Your task to perform on an android device: turn on the 24-hour format for clock Image 0: 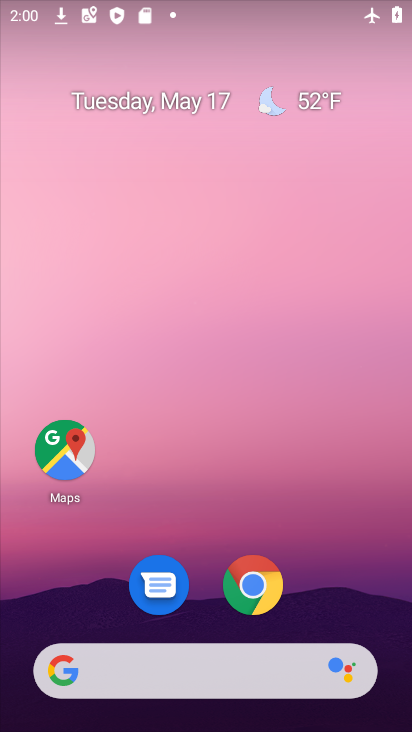
Step 0: drag from (227, 506) to (319, 28)
Your task to perform on an android device: turn on the 24-hour format for clock Image 1: 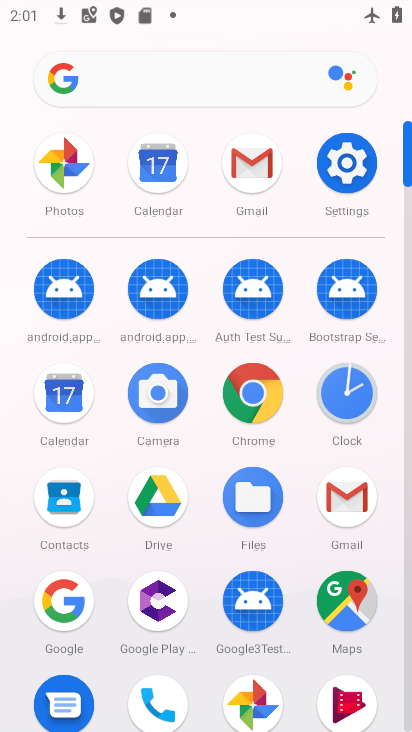
Step 1: click (343, 384)
Your task to perform on an android device: turn on the 24-hour format for clock Image 2: 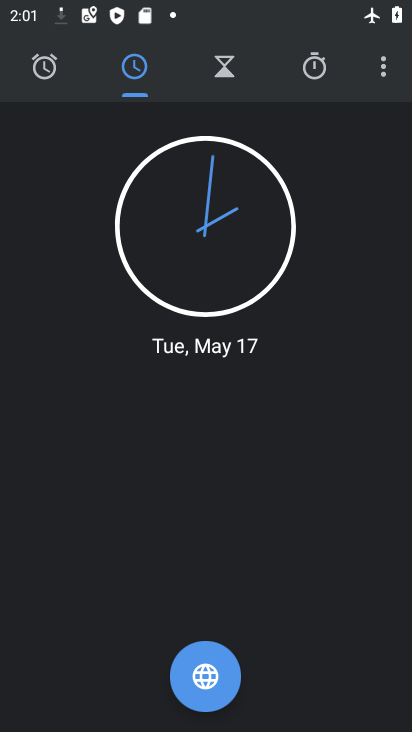
Step 2: click (384, 77)
Your task to perform on an android device: turn on the 24-hour format for clock Image 3: 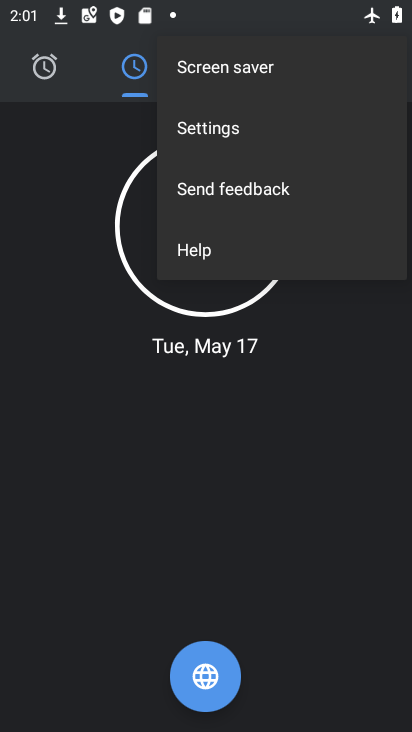
Step 3: click (303, 129)
Your task to perform on an android device: turn on the 24-hour format for clock Image 4: 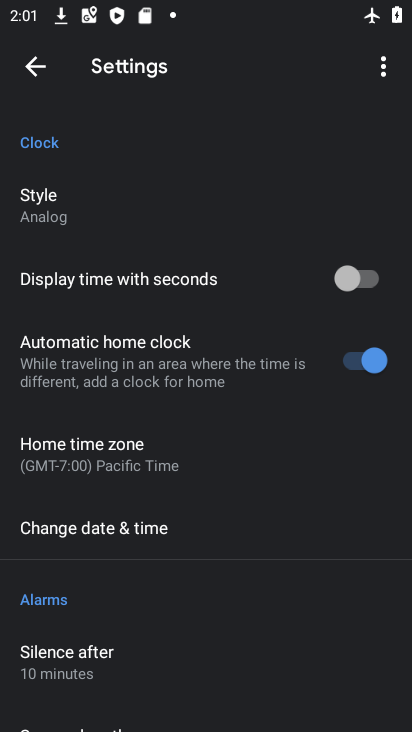
Step 4: click (212, 531)
Your task to perform on an android device: turn on the 24-hour format for clock Image 5: 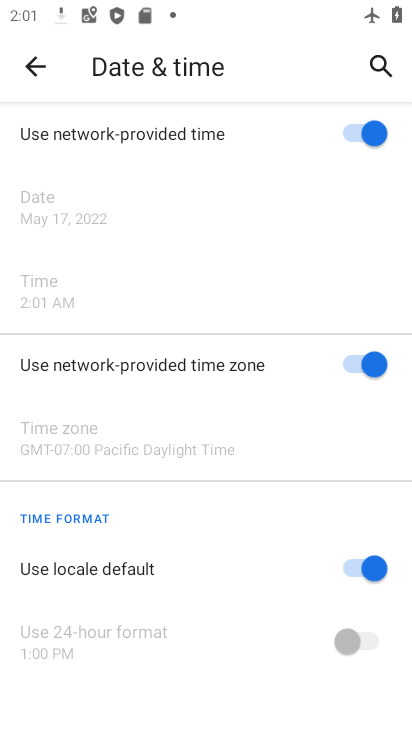
Step 5: click (358, 566)
Your task to perform on an android device: turn on the 24-hour format for clock Image 6: 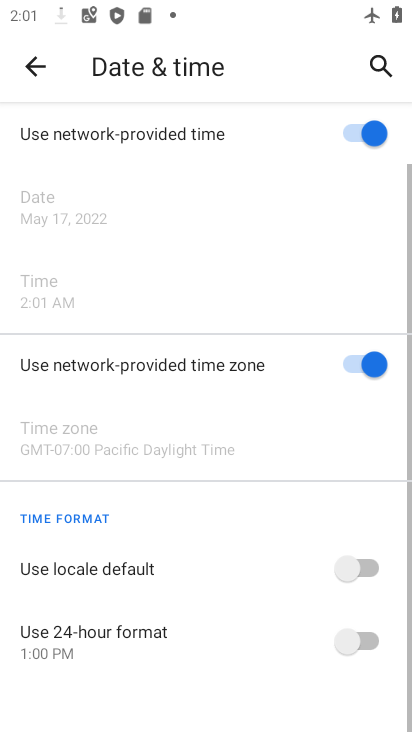
Step 6: click (366, 632)
Your task to perform on an android device: turn on the 24-hour format for clock Image 7: 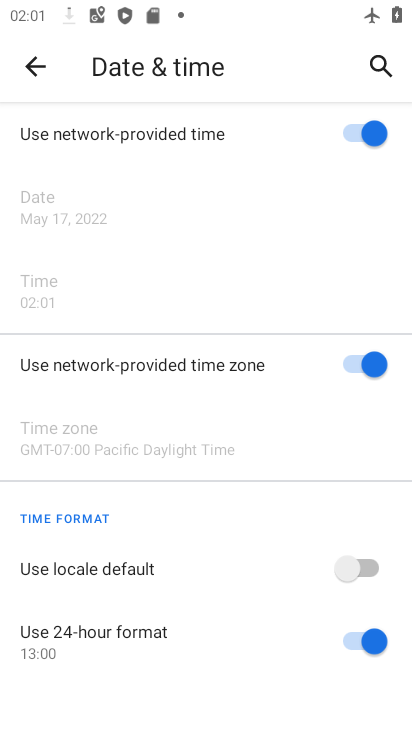
Step 7: task complete